Your task to perform on an android device: Open the map Image 0: 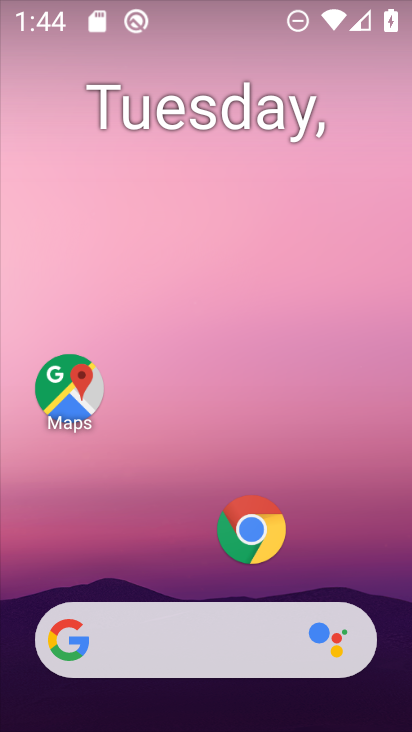
Step 0: press home button
Your task to perform on an android device: Open the map Image 1: 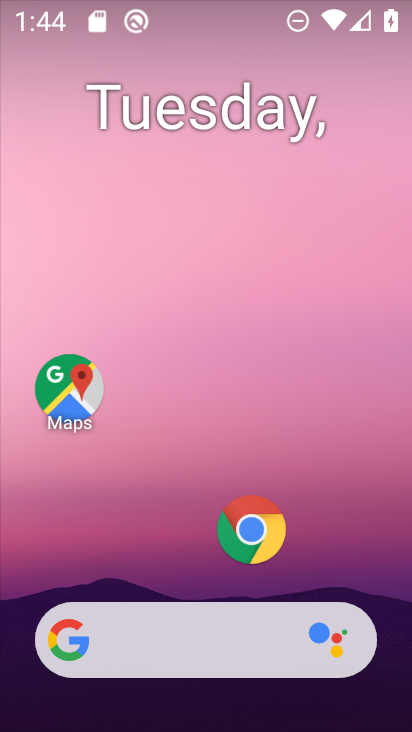
Step 1: drag from (252, 698) to (327, 204)
Your task to perform on an android device: Open the map Image 2: 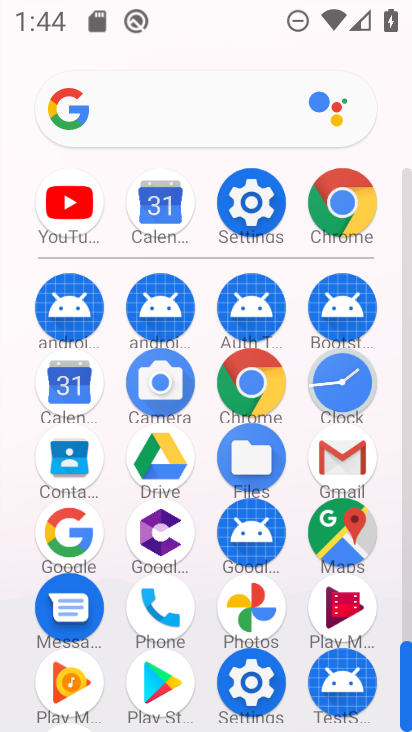
Step 2: click (343, 524)
Your task to perform on an android device: Open the map Image 3: 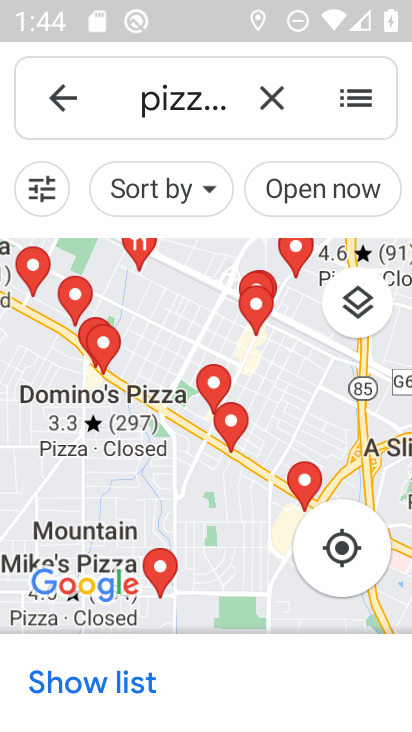
Step 3: click (53, 84)
Your task to perform on an android device: Open the map Image 4: 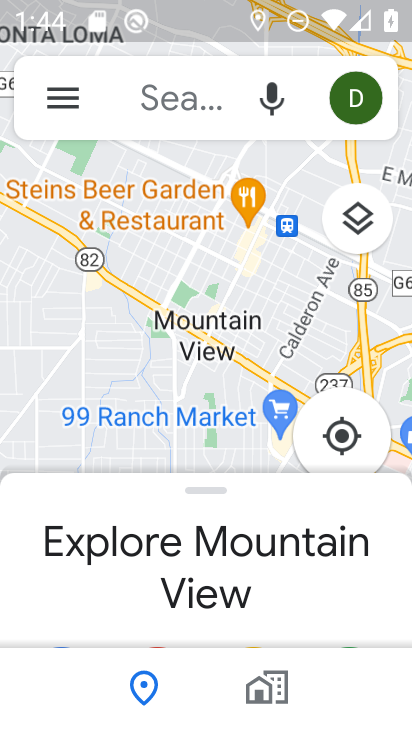
Step 4: click (338, 429)
Your task to perform on an android device: Open the map Image 5: 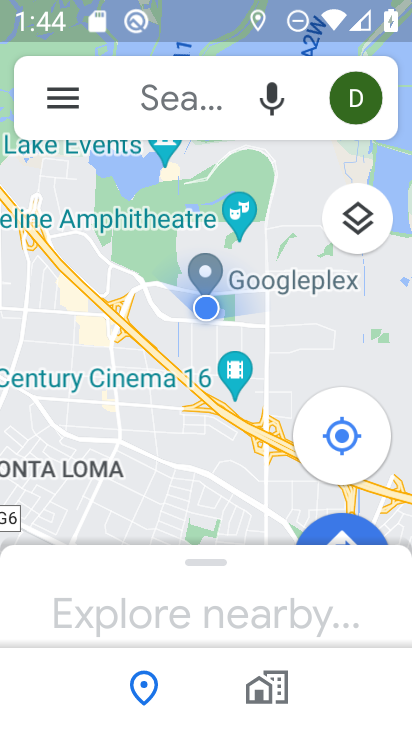
Step 5: task complete